Your task to perform on an android device: turn on priority inbox in the gmail app Image 0: 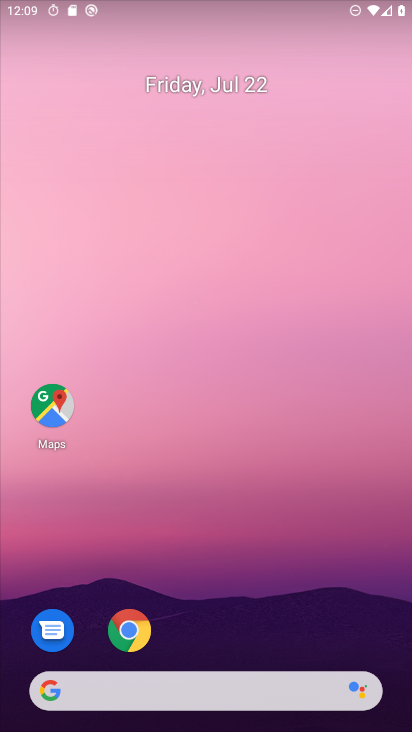
Step 0: press home button
Your task to perform on an android device: turn on priority inbox in the gmail app Image 1: 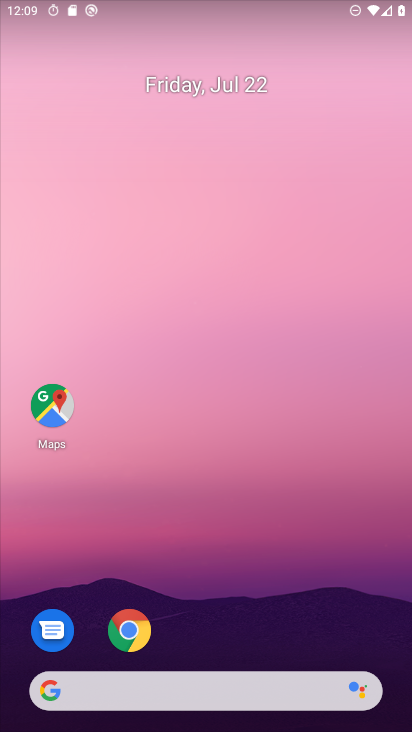
Step 1: drag from (259, 653) to (307, 210)
Your task to perform on an android device: turn on priority inbox in the gmail app Image 2: 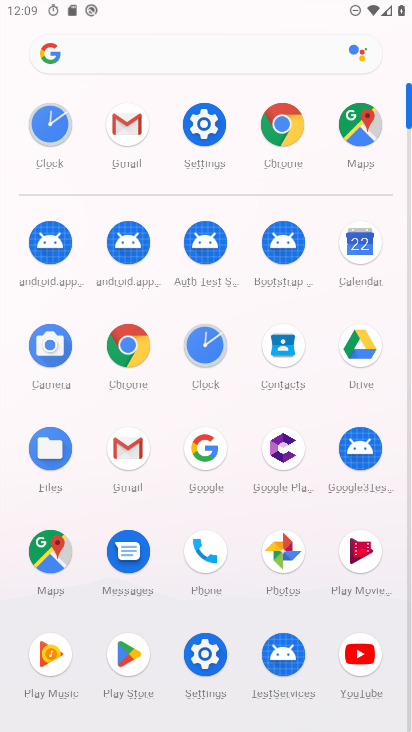
Step 2: click (126, 133)
Your task to perform on an android device: turn on priority inbox in the gmail app Image 3: 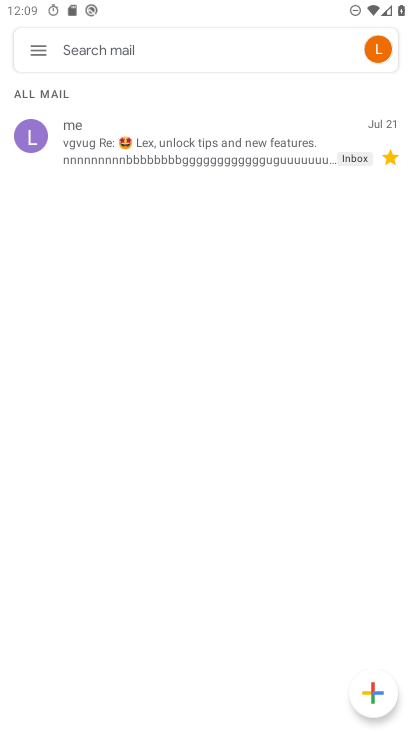
Step 3: click (39, 51)
Your task to perform on an android device: turn on priority inbox in the gmail app Image 4: 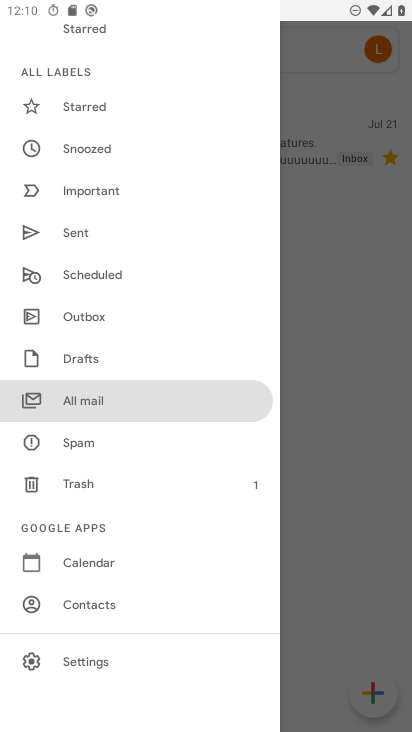
Step 4: click (93, 660)
Your task to perform on an android device: turn on priority inbox in the gmail app Image 5: 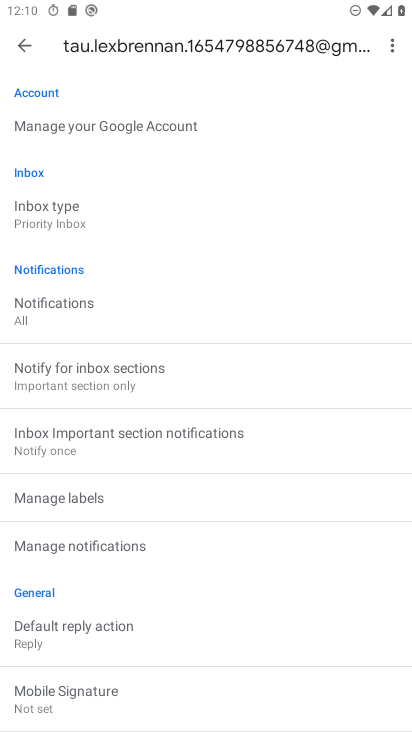
Step 5: task complete